Your task to perform on an android device: Check the news Image 0: 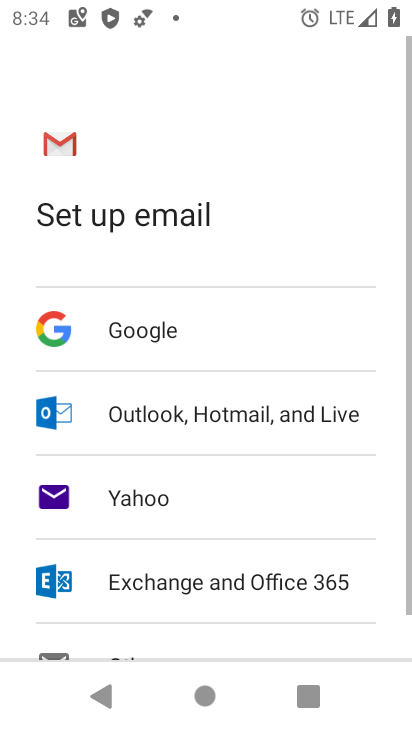
Step 0: press back button
Your task to perform on an android device: Check the news Image 1: 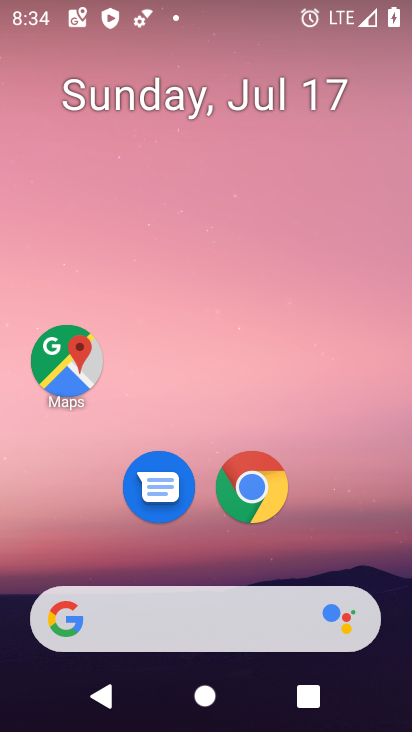
Step 1: click (131, 616)
Your task to perform on an android device: Check the news Image 2: 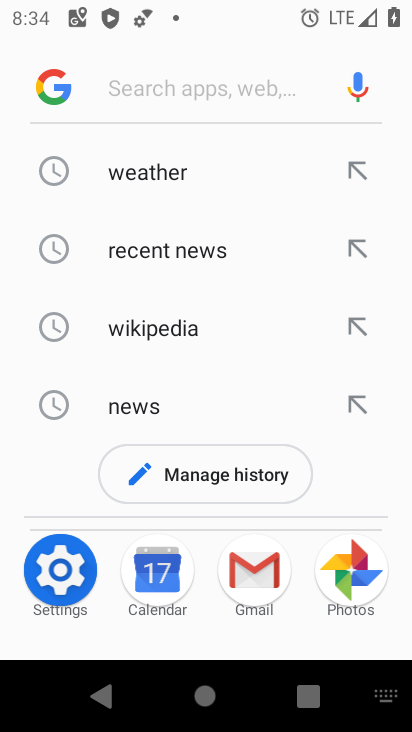
Step 2: click (137, 397)
Your task to perform on an android device: Check the news Image 3: 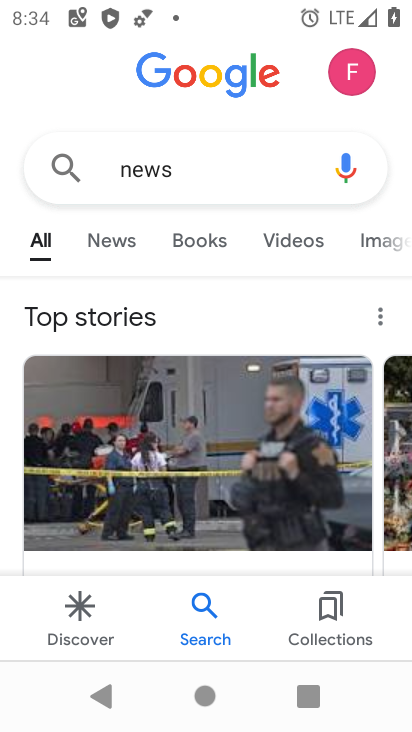
Step 3: task complete